Your task to perform on an android device: turn off wifi Image 0: 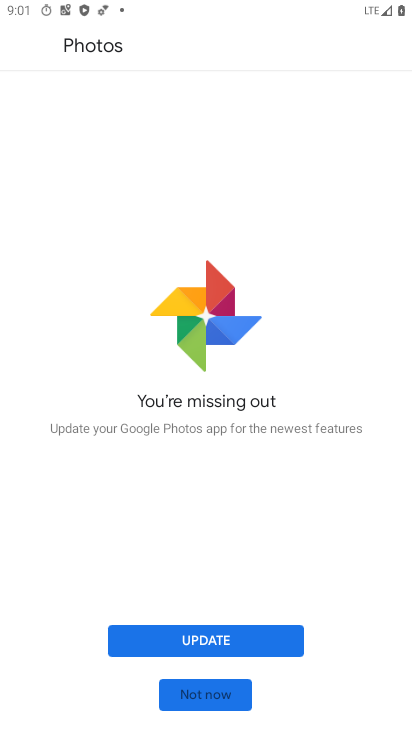
Step 0: press home button
Your task to perform on an android device: turn off wifi Image 1: 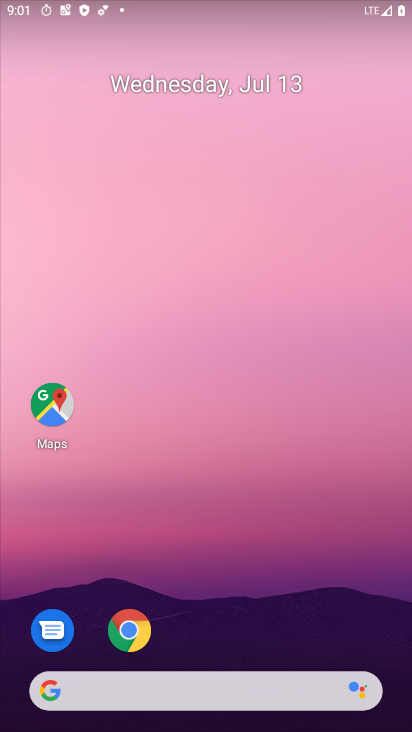
Step 1: drag from (328, 600) to (318, 90)
Your task to perform on an android device: turn off wifi Image 2: 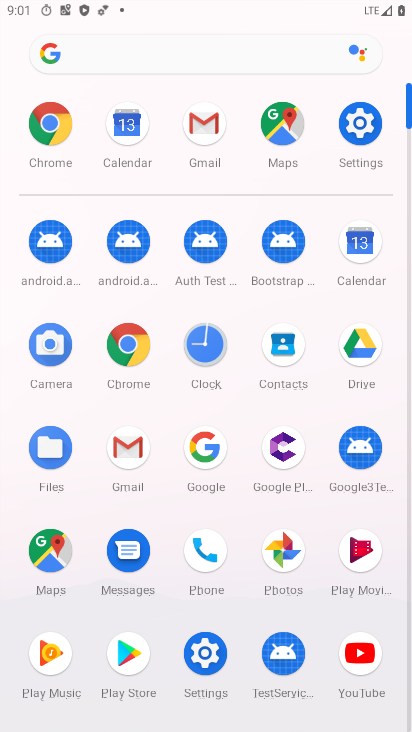
Step 2: click (375, 127)
Your task to perform on an android device: turn off wifi Image 3: 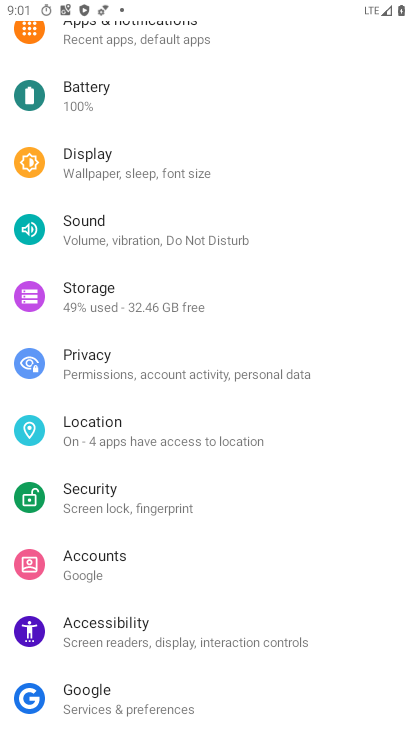
Step 3: drag from (353, 226) to (350, 363)
Your task to perform on an android device: turn off wifi Image 4: 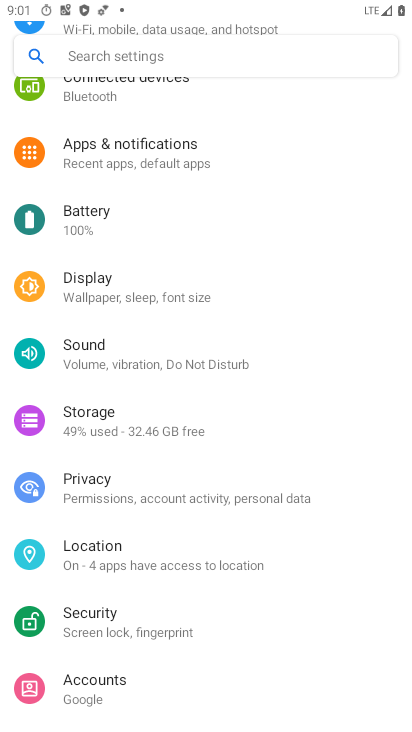
Step 4: drag from (337, 177) to (338, 364)
Your task to perform on an android device: turn off wifi Image 5: 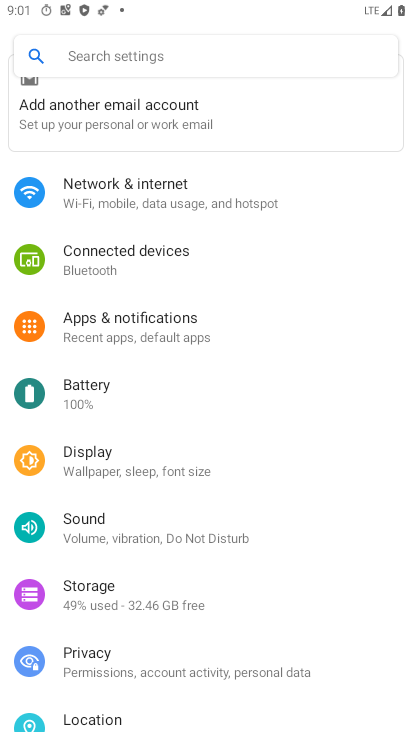
Step 5: click (255, 199)
Your task to perform on an android device: turn off wifi Image 6: 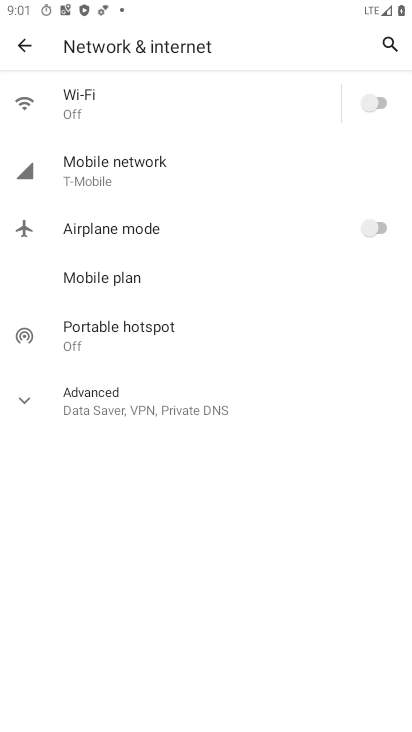
Step 6: task complete